Your task to perform on an android device: change the clock display to digital Image 0: 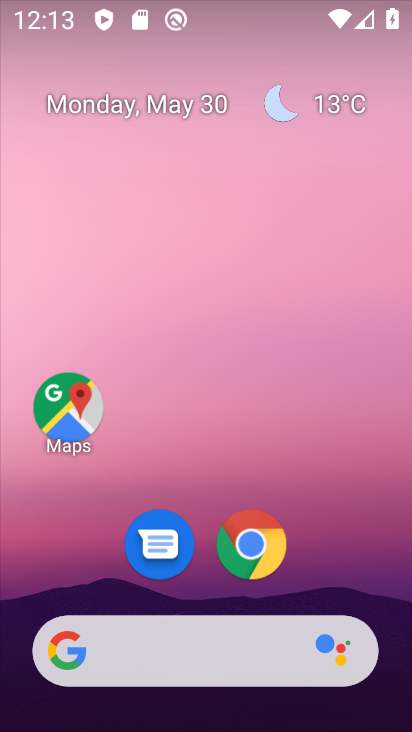
Step 0: drag from (338, 566) to (320, 68)
Your task to perform on an android device: change the clock display to digital Image 1: 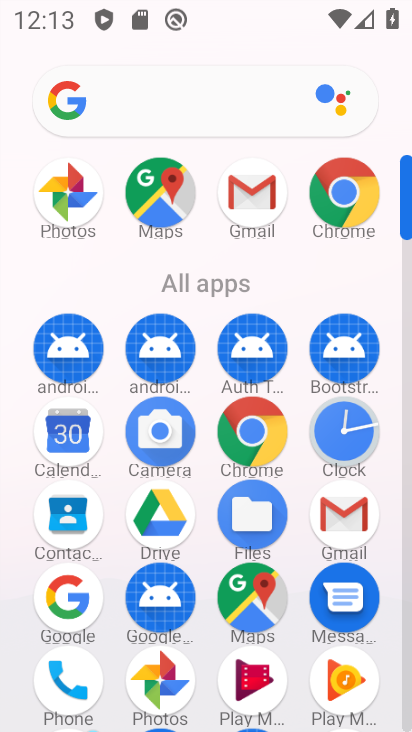
Step 1: click (344, 430)
Your task to perform on an android device: change the clock display to digital Image 2: 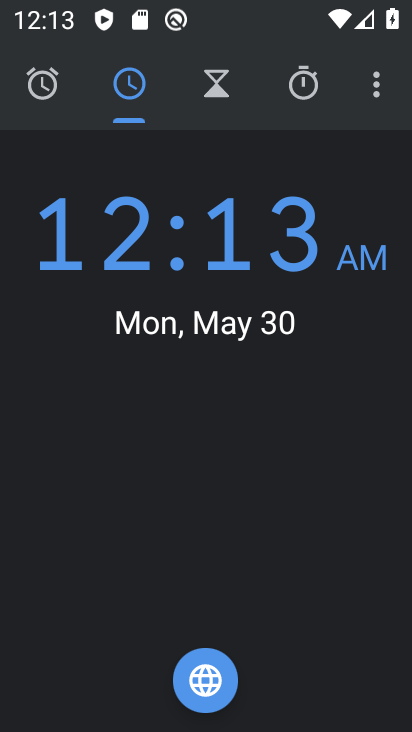
Step 2: click (377, 110)
Your task to perform on an android device: change the clock display to digital Image 3: 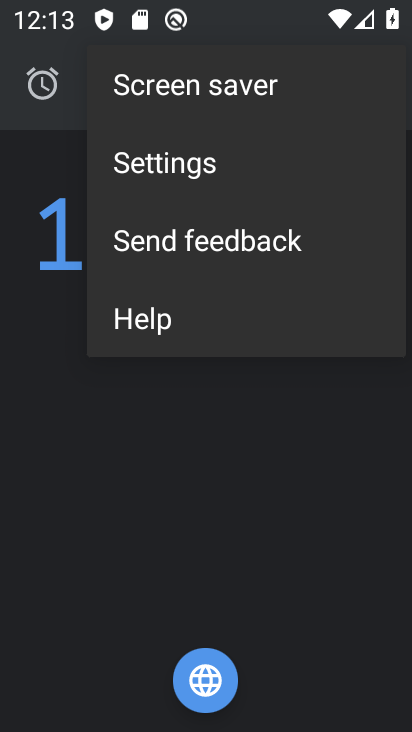
Step 3: click (303, 161)
Your task to perform on an android device: change the clock display to digital Image 4: 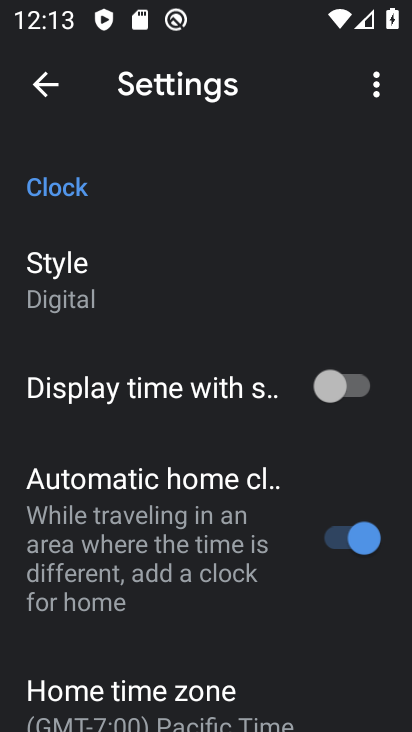
Step 4: task complete